Your task to perform on an android device: What's US dollar exchange rate against the South Korean Won? Image 0: 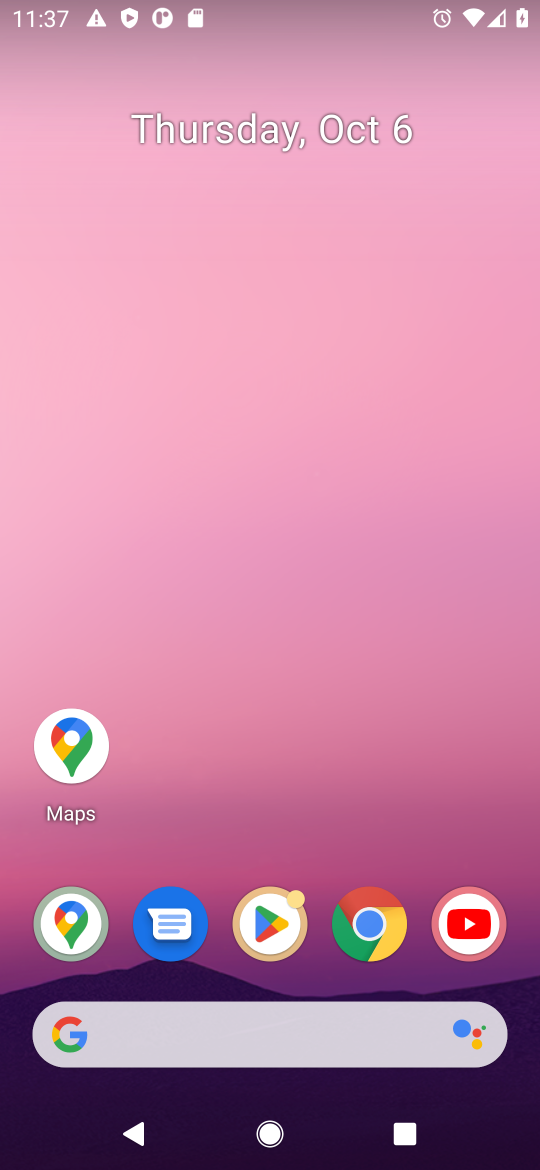
Step 0: click (361, 933)
Your task to perform on an android device: What's US dollar exchange rate against the South Korean Won? Image 1: 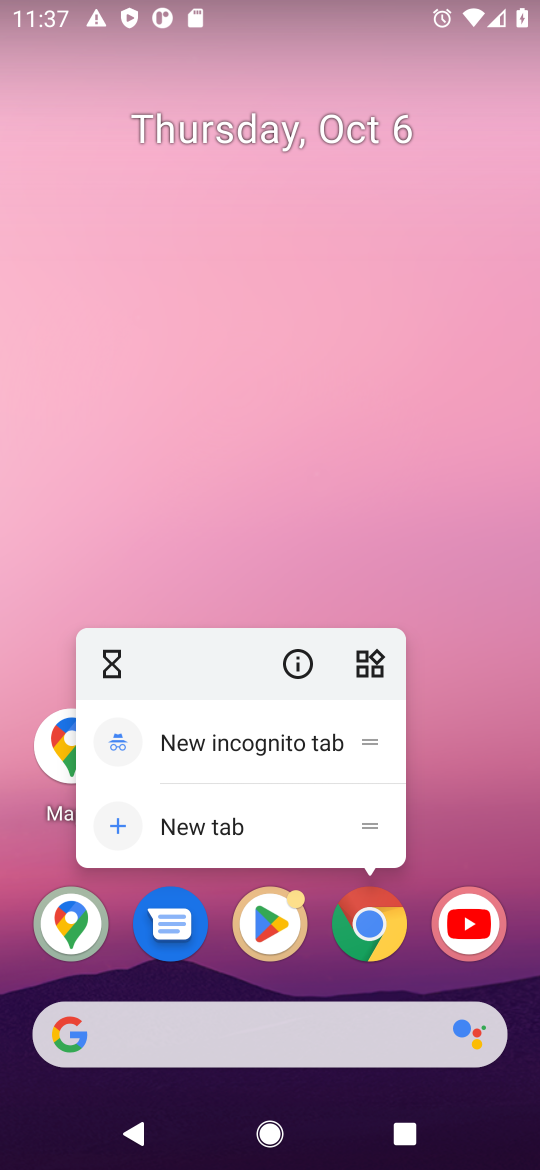
Step 1: click (384, 912)
Your task to perform on an android device: What's US dollar exchange rate against the South Korean Won? Image 2: 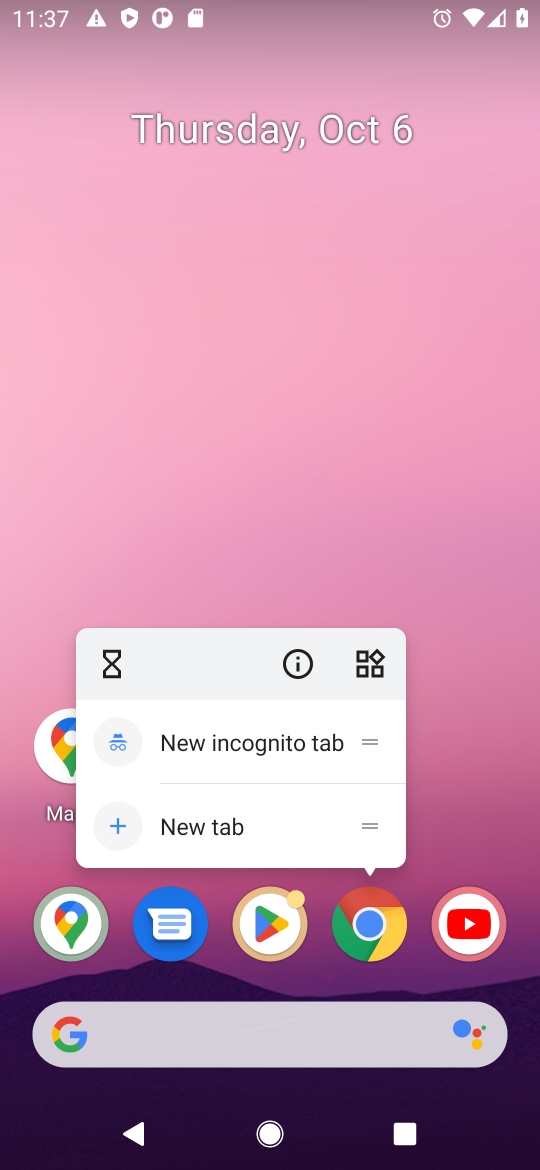
Step 2: click (399, 912)
Your task to perform on an android device: What's US dollar exchange rate against the South Korean Won? Image 3: 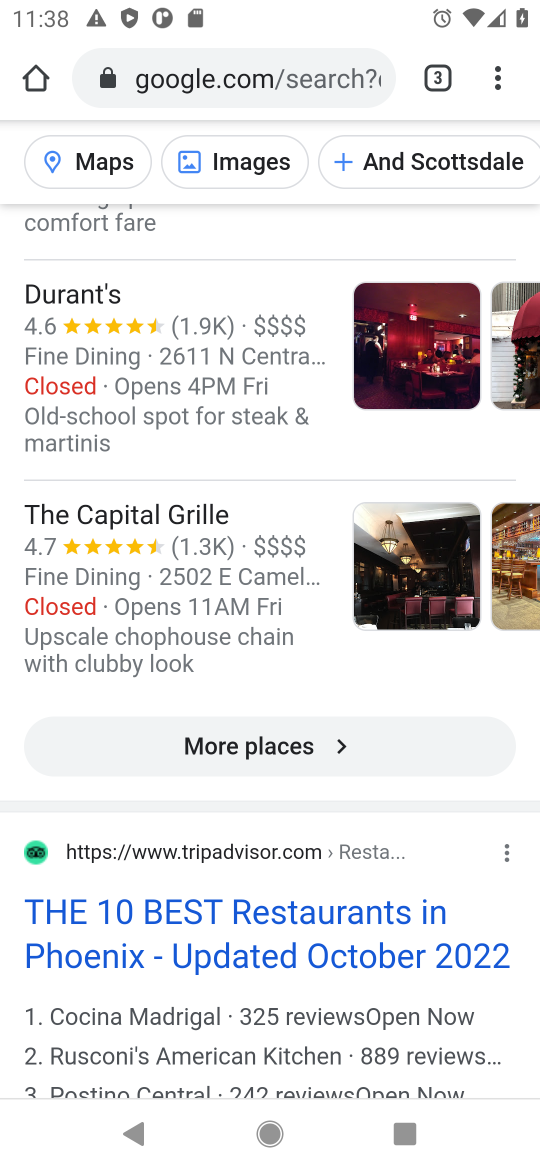
Step 3: click (322, 78)
Your task to perform on an android device: What's US dollar exchange rate against the South Korean Won? Image 4: 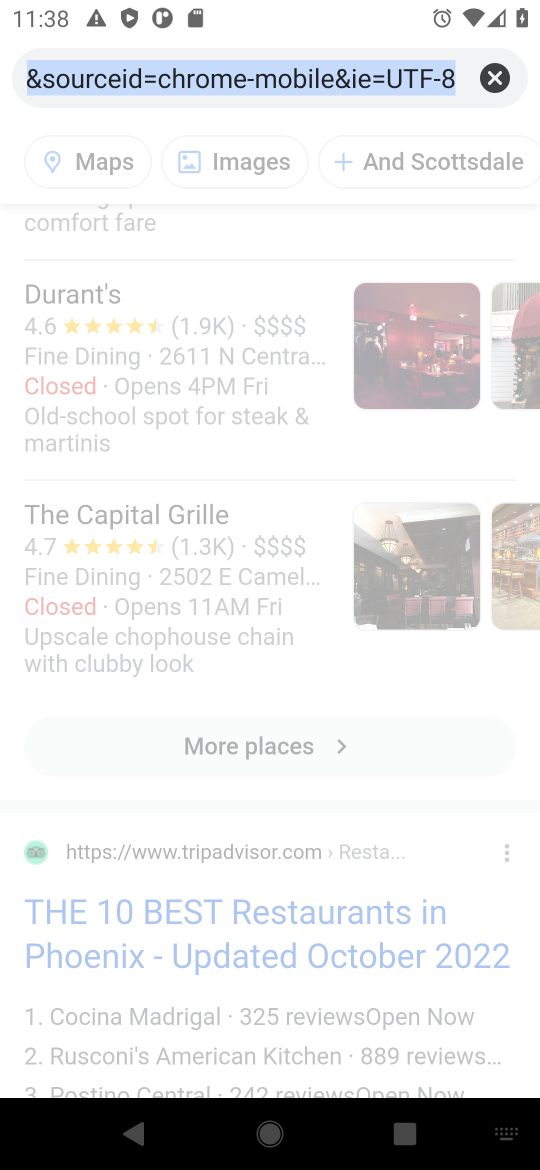
Step 4: click (499, 84)
Your task to perform on an android device: What's US dollar exchange rate against the South Korean Won? Image 5: 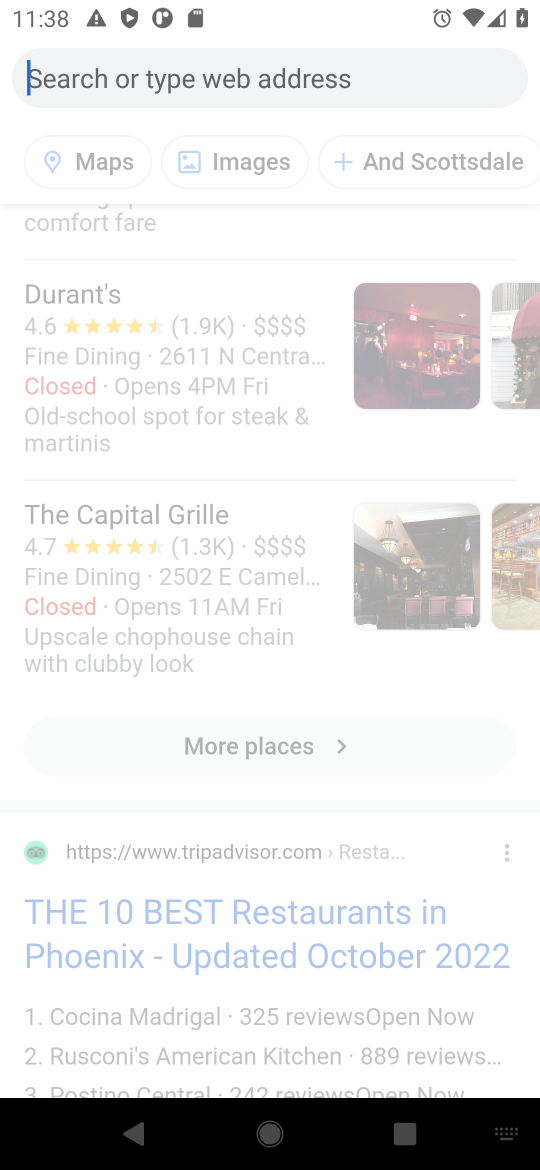
Step 5: type "US dollar exchange rate against the South Korean Won"
Your task to perform on an android device: What's US dollar exchange rate against the South Korean Won? Image 6: 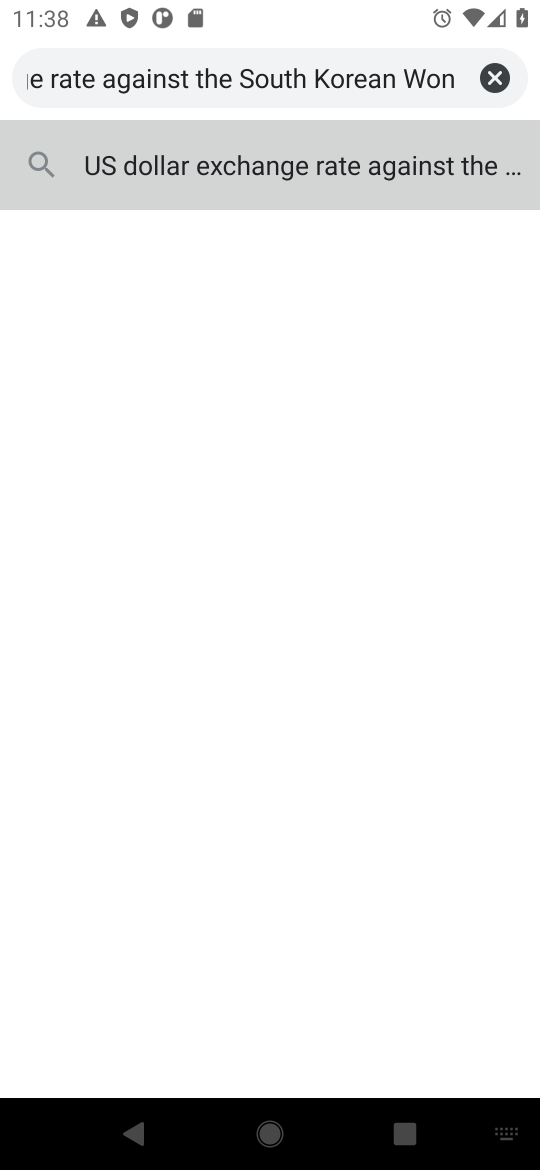
Step 6: click (235, 164)
Your task to perform on an android device: What's US dollar exchange rate against the South Korean Won? Image 7: 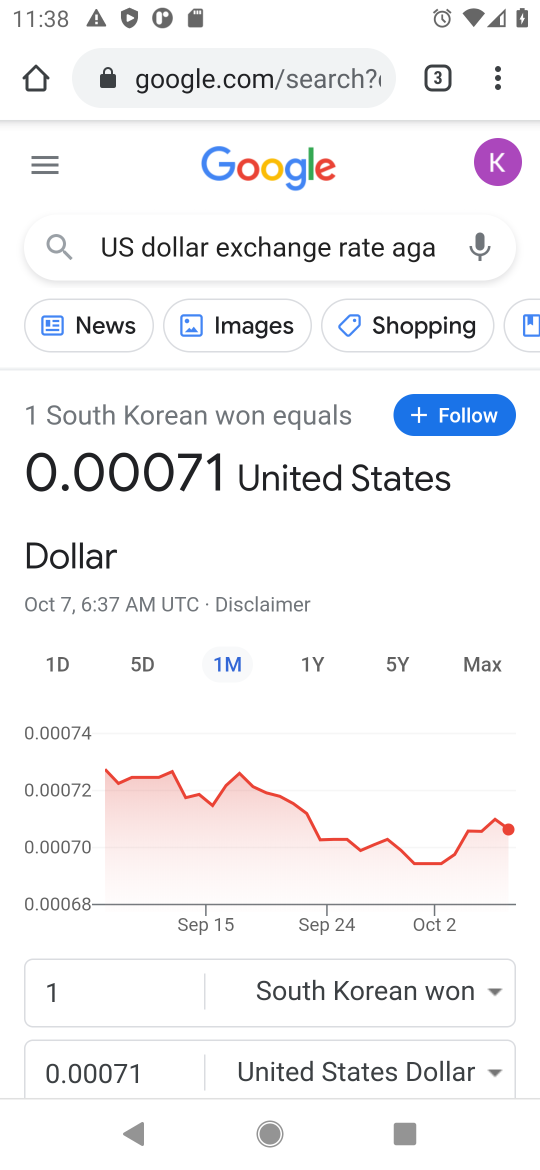
Step 7: task complete